Your task to perform on an android device: check out phone information Image 0: 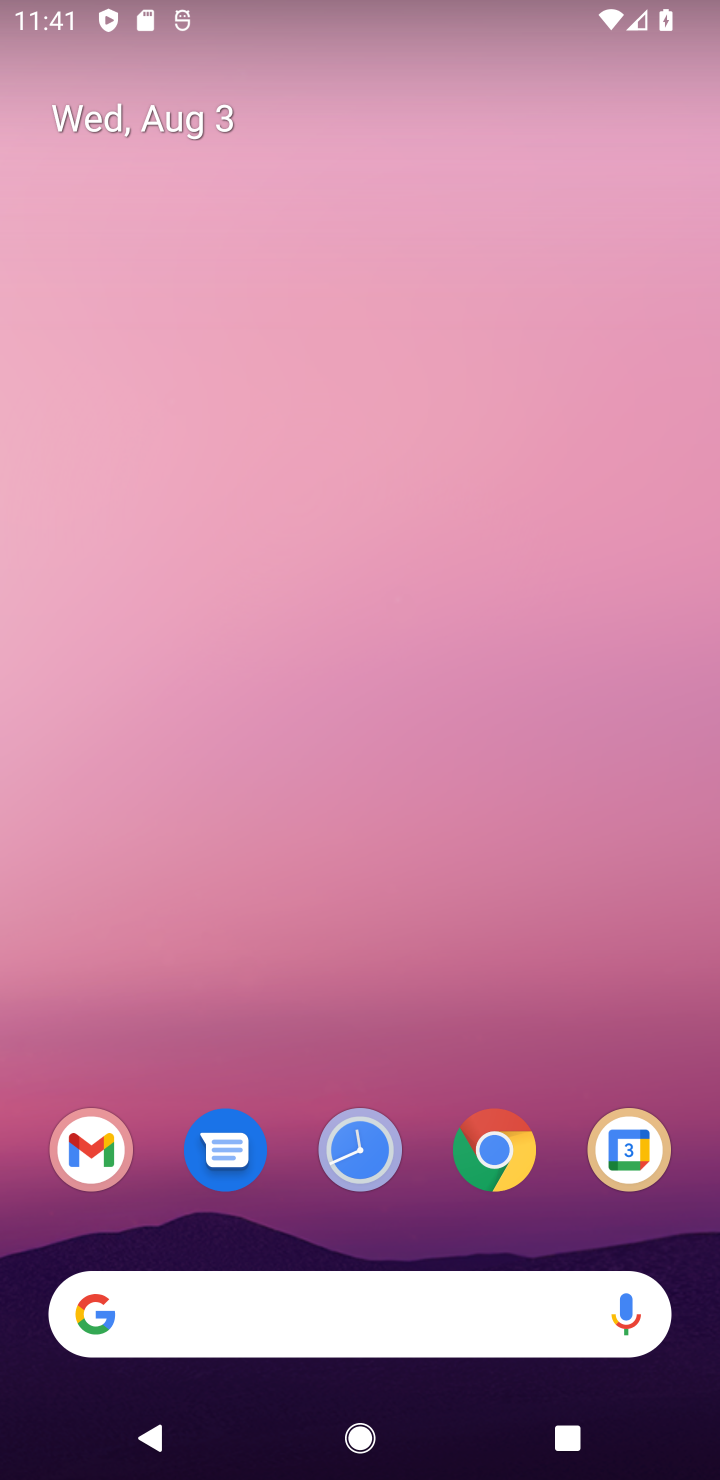
Step 0: drag from (567, 1047) to (580, 333)
Your task to perform on an android device: check out phone information Image 1: 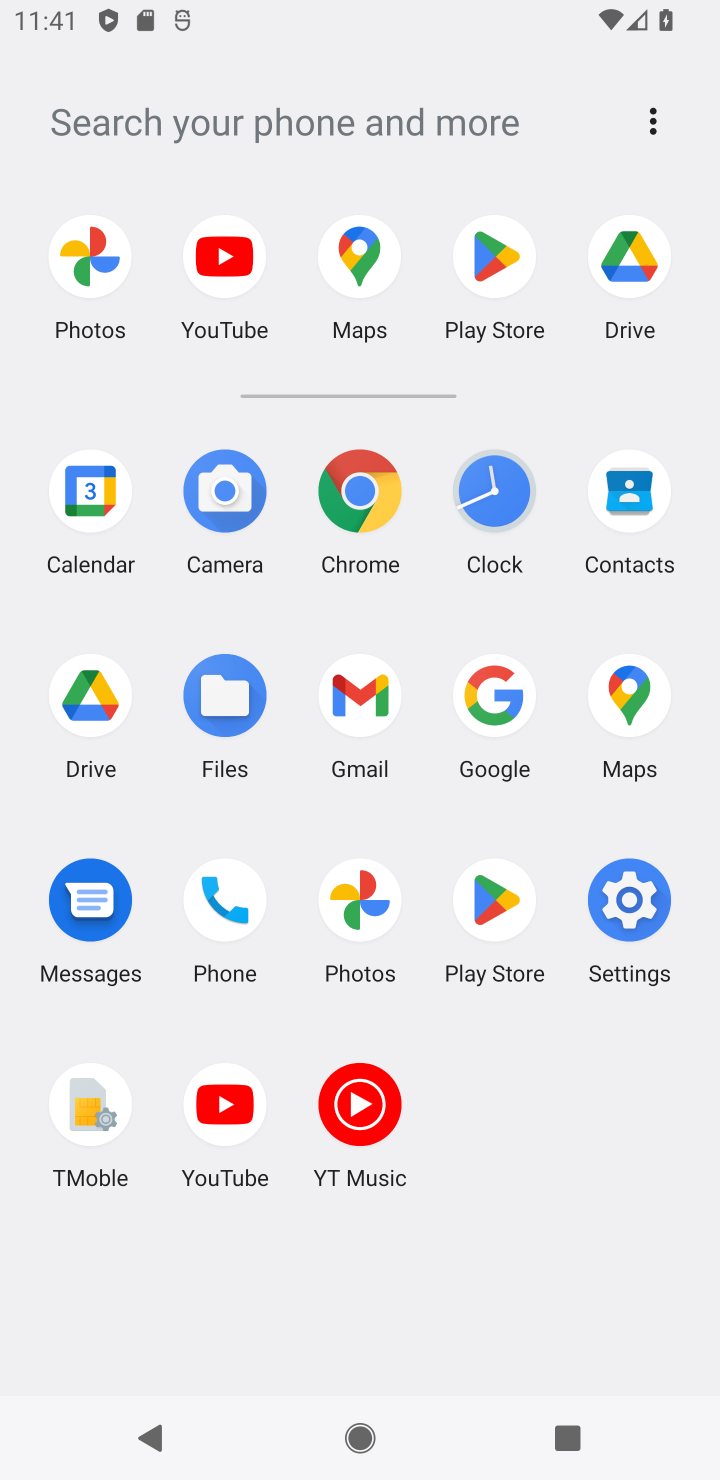
Step 1: click (229, 903)
Your task to perform on an android device: check out phone information Image 2: 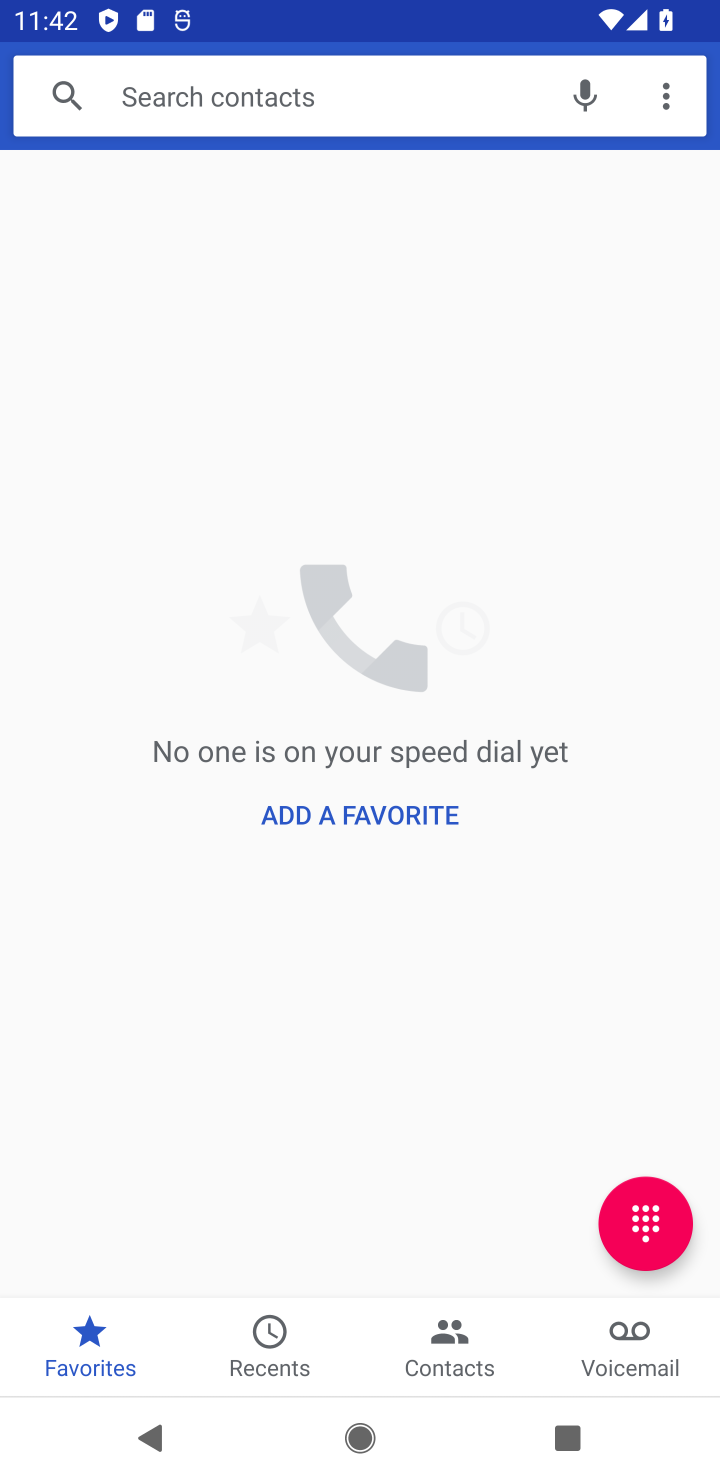
Step 2: task complete